Your task to perform on an android device: Go to privacy settings Image 0: 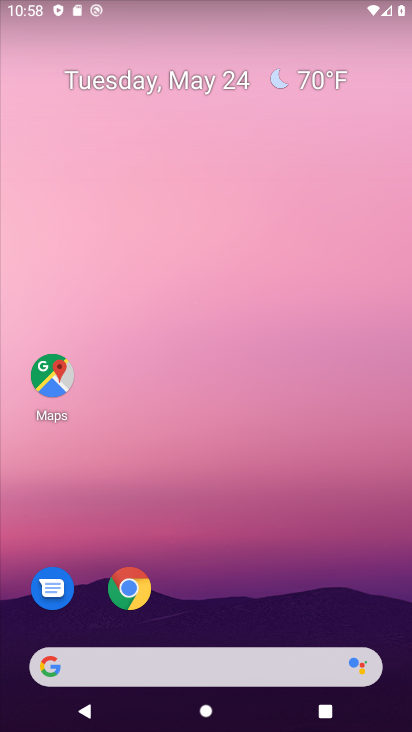
Step 0: press home button
Your task to perform on an android device: Go to privacy settings Image 1: 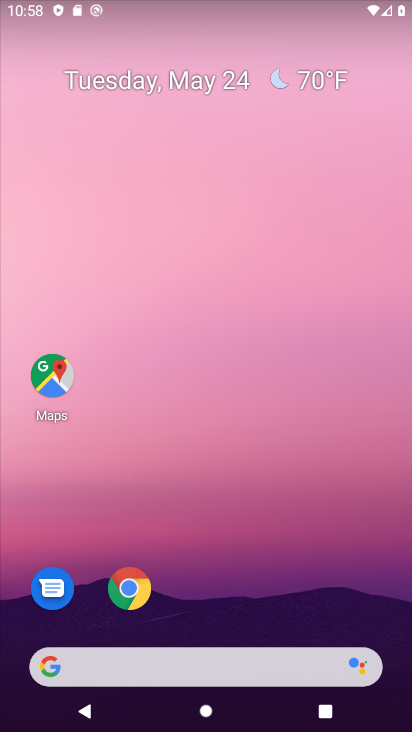
Step 1: drag from (219, 614) to (217, 147)
Your task to perform on an android device: Go to privacy settings Image 2: 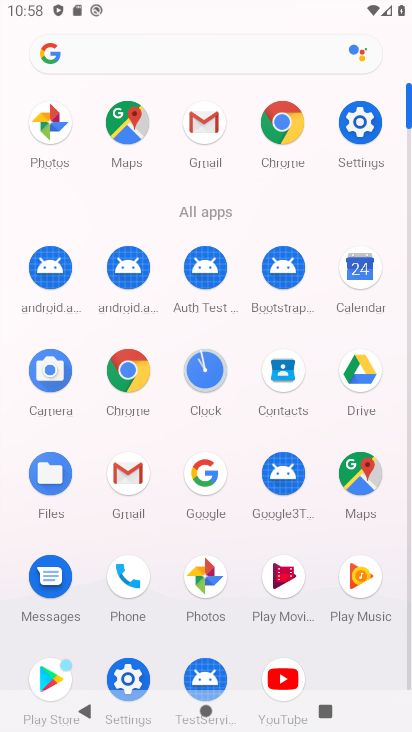
Step 2: click (358, 119)
Your task to perform on an android device: Go to privacy settings Image 3: 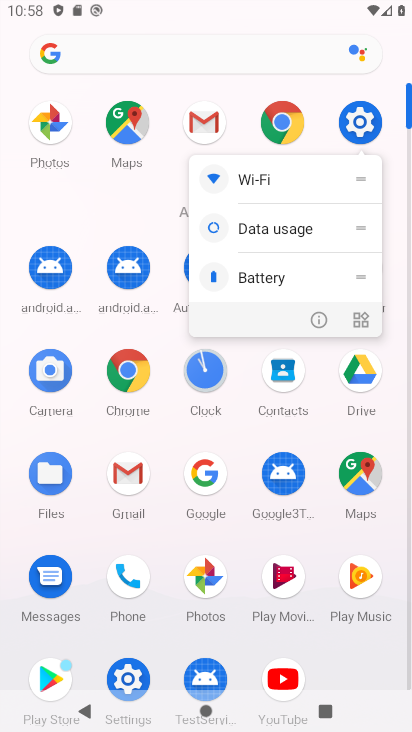
Step 3: click (355, 120)
Your task to perform on an android device: Go to privacy settings Image 4: 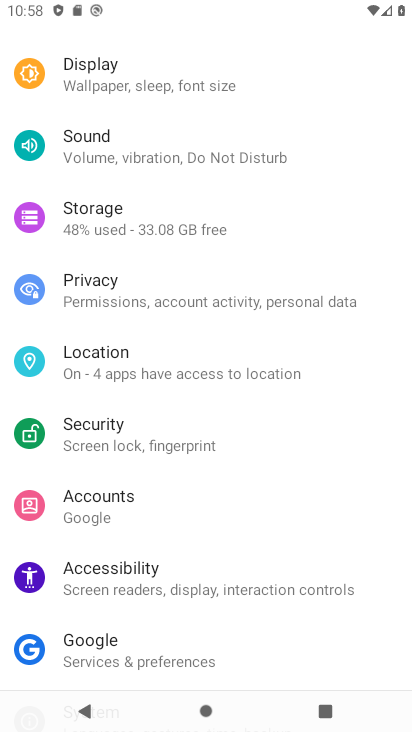
Step 4: click (135, 283)
Your task to perform on an android device: Go to privacy settings Image 5: 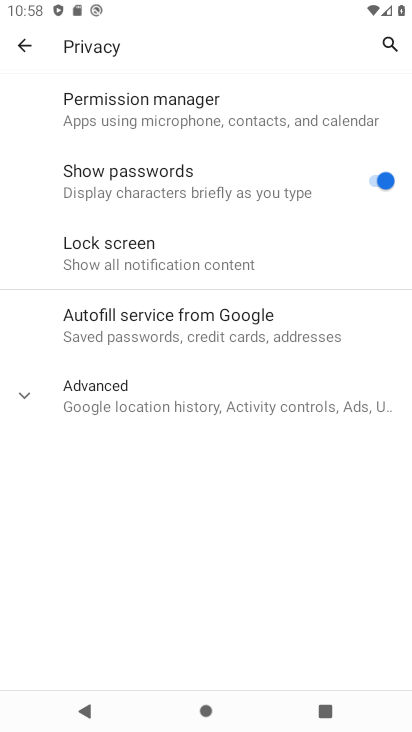
Step 5: click (28, 390)
Your task to perform on an android device: Go to privacy settings Image 6: 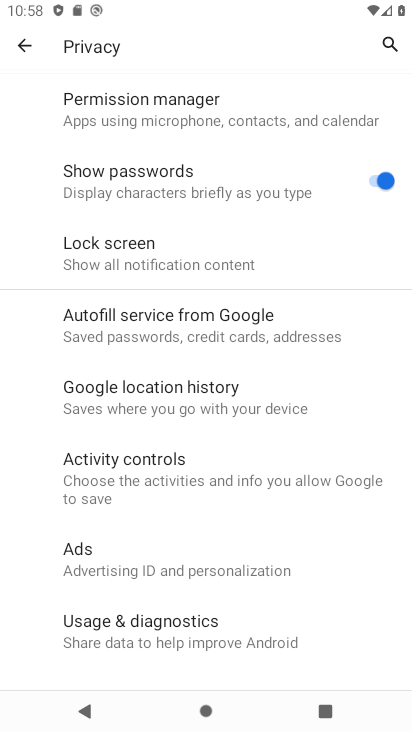
Step 6: task complete